Your task to perform on an android device: Look up the best selling patio furniture on Home Depot Image 0: 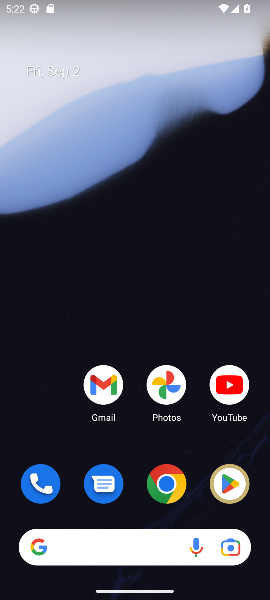
Step 0: click (166, 484)
Your task to perform on an android device: Look up the best selling patio furniture on Home Depot Image 1: 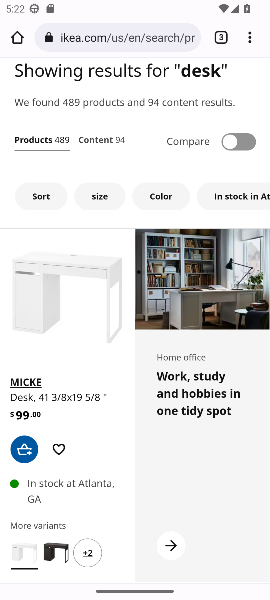
Step 1: click (155, 37)
Your task to perform on an android device: Look up the best selling patio furniture on Home Depot Image 2: 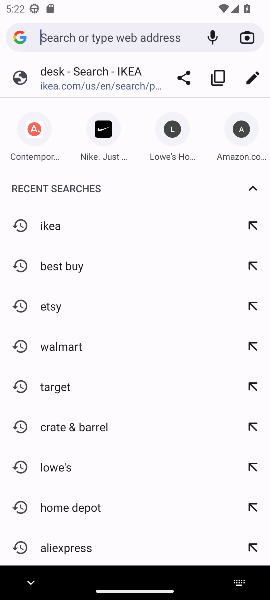
Step 2: type "Home Depot"
Your task to perform on an android device: Look up the best selling patio furniture on Home Depot Image 3: 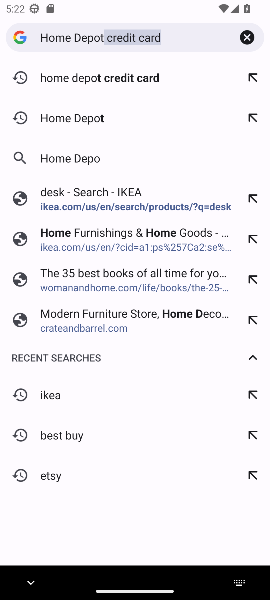
Step 3: press enter
Your task to perform on an android device: Look up the best selling patio furniture on Home Depot Image 4: 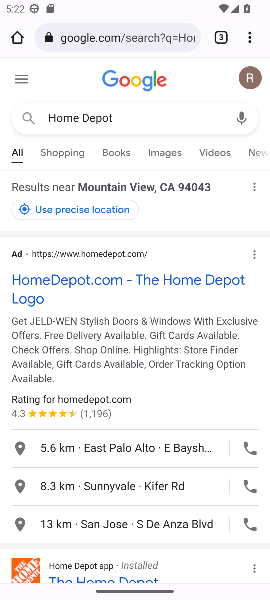
Step 4: click (148, 278)
Your task to perform on an android device: Look up the best selling patio furniture on Home Depot Image 5: 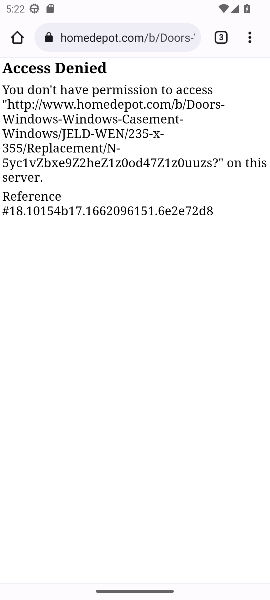
Step 5: task complete